Your task to perform on an android device: open chrome privacy settings Image 0: 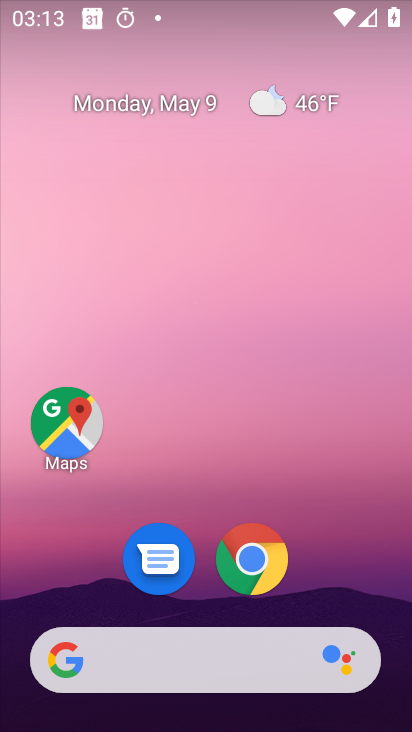
Step 0: click (250, 560)
Your task to perform on an android device: open chrome privacy settings Image 1: 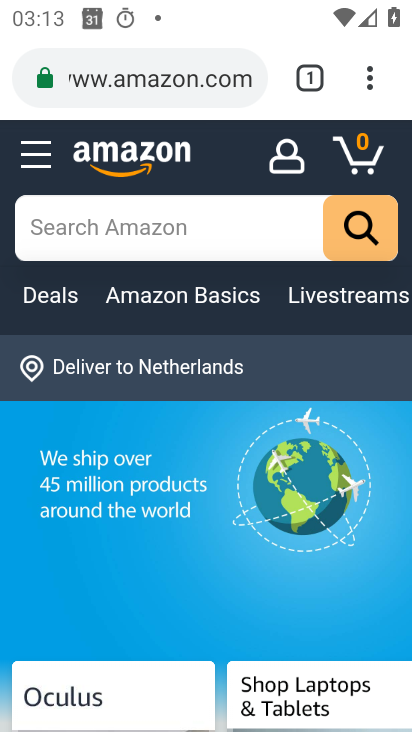
Step 1: click (371, 77)
Your task to perform on an android device: open chrome privacy settings Image 2: 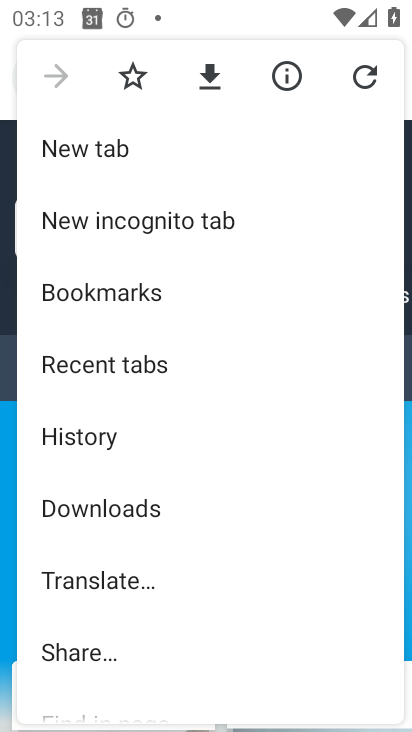
Step 2: drag from (155, 542) to (177, 421)
Your task to perform on an android device: open chrome privacy settings Image 3: 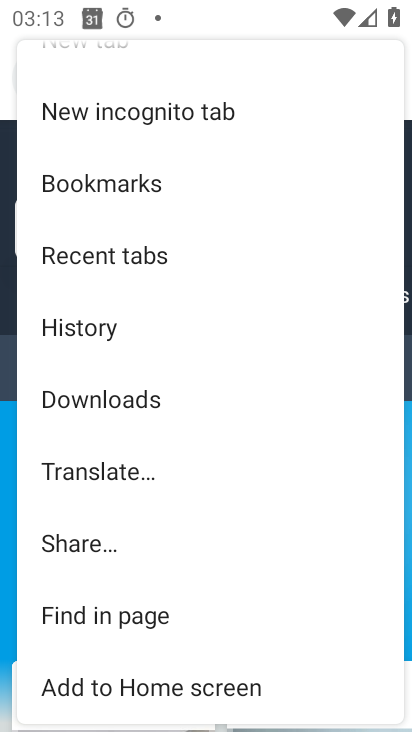
Step 3: drag from (175, 537) to (237, 405)
Your task to perform on an android device: open chrome privacy settings Image 4: 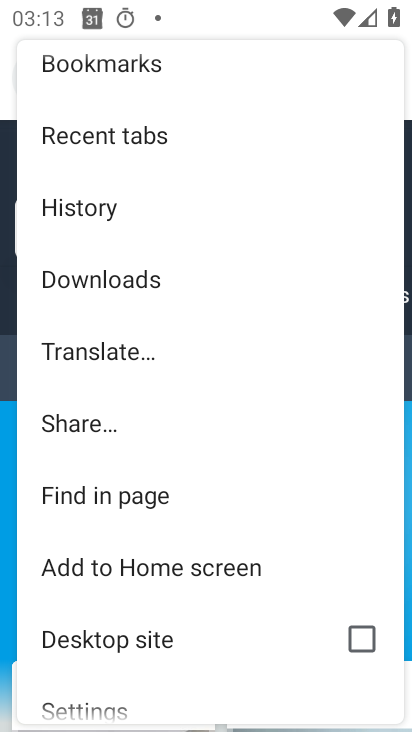
Step 4: drag from (159, 598) to (209, 448)
Your task to perform on an android device: open chrome privacy settings Image 5: 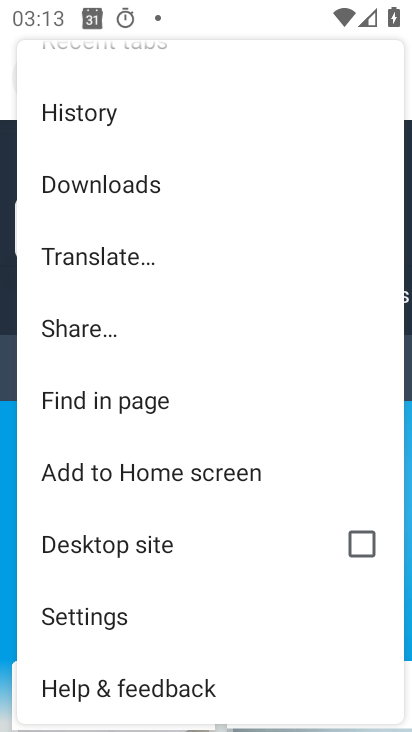
Step 5: click (102, 617)
Your task to perform on an android device: open chrome privacy settings Image 6: 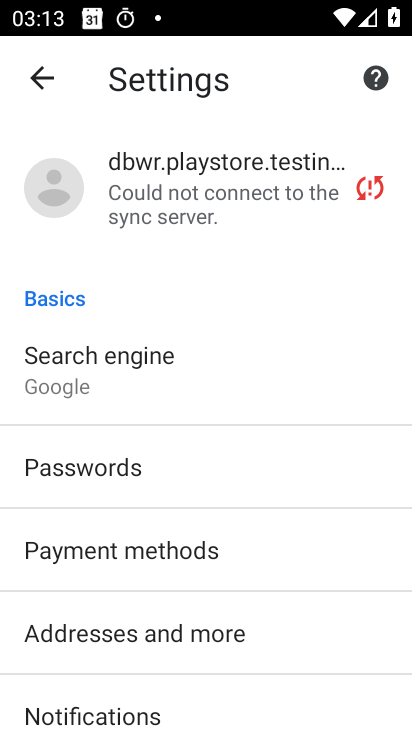
Step 6: drag from (132, 600) to (212, 441)
Your task to perform on an android device: open chrome privacy settings Image 7: 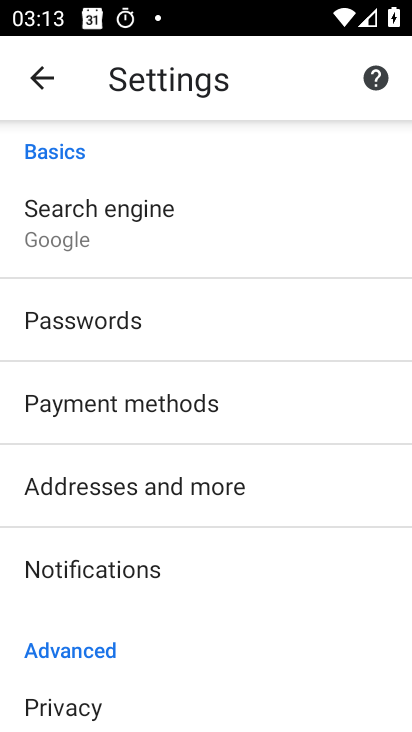
Step 7: drag from (145, 619) to (247, 428)
Your task to perform on an android device: open chrome privacy settings Image 8: 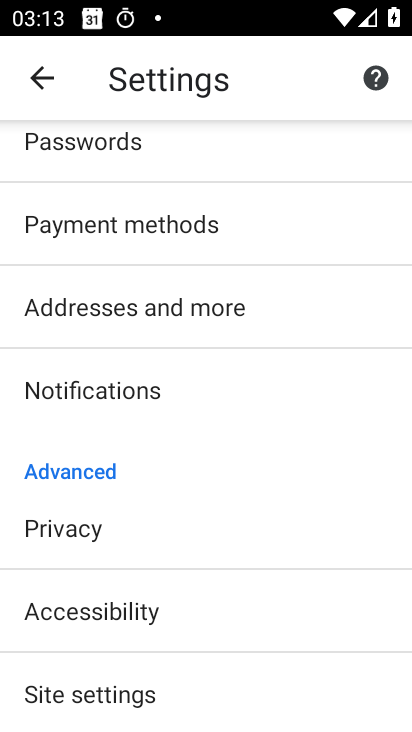
Step 8: click (45, 530)
Your task to perform on an android device: open chrome privacy settings Image 9: 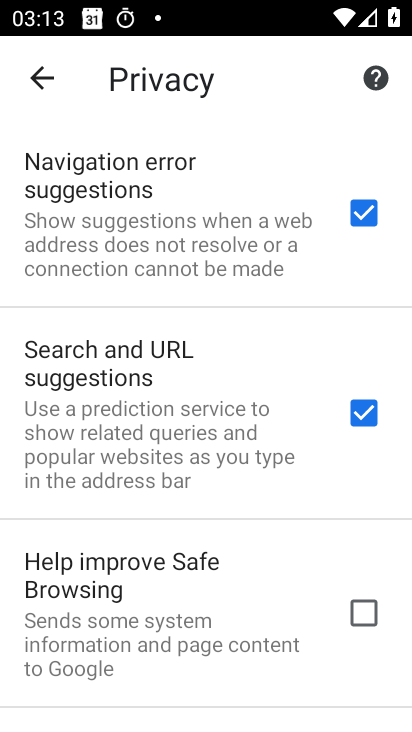
Step 9: task complete